Your task to perform on an android device: allow cookies in the chrome app Image 0: 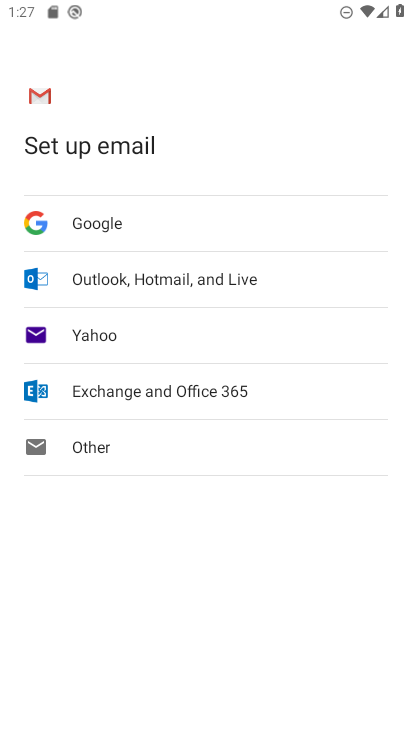
Step 0: press home button
Your task to perform on an android device: allow cookies in the chrome app Image 1: 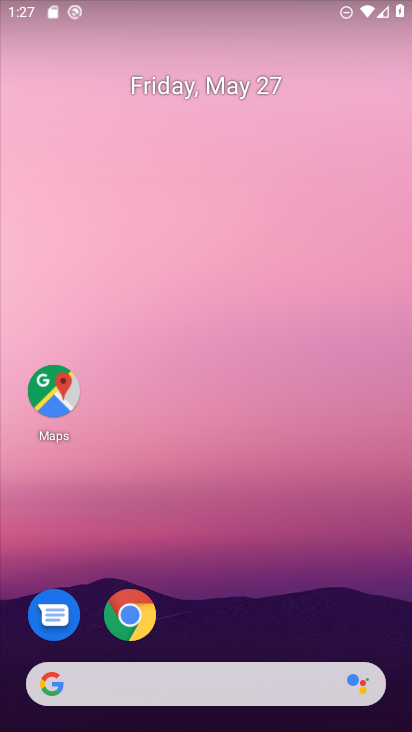
Step 1: drag from (253, 618) to (261, 190)
Your task to perform on an android device: allow cookies in the chrome app Image 2: 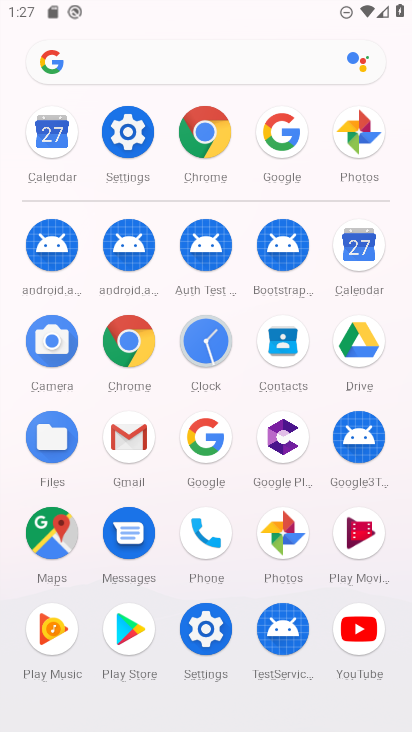
Step 2: click (139, 367)
Your task to perform on an android device: allow cookies in the chrome app Image 3: 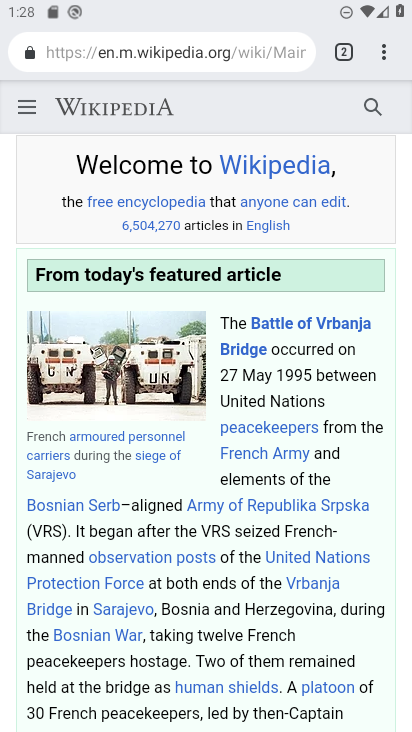
Step 3: click (386, 59)
Your task to perform on an android device: allow cookies in the chrome app Image 4: 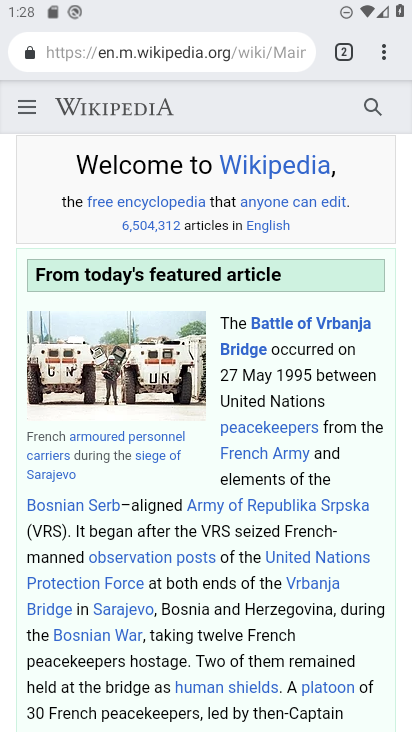
Step 4: click (386, 59)
Your task to perform on an android device: allow cookies in the chrome app Image 5: 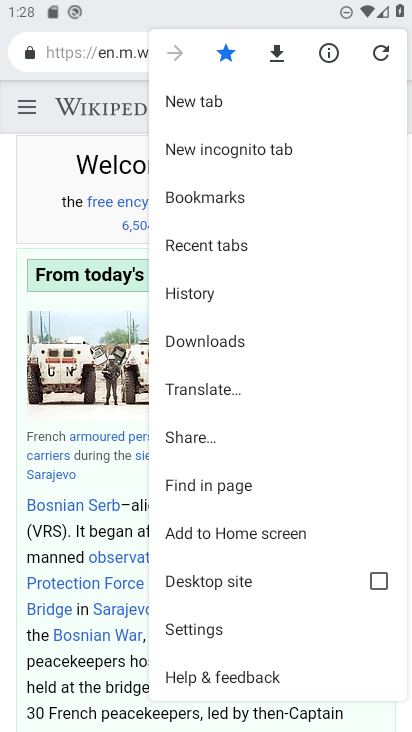
Step 5: drag from (240, 569) to (283, 407)
Your task to perform on an android device: allow cookies in the chrome app Image 6: 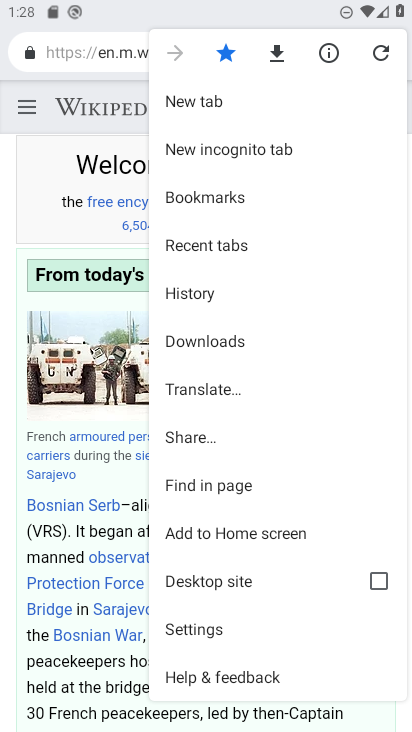
Step 6: click (211, 634)
Your task to perform on an android device: allow cookies in the chrome app Image 7: 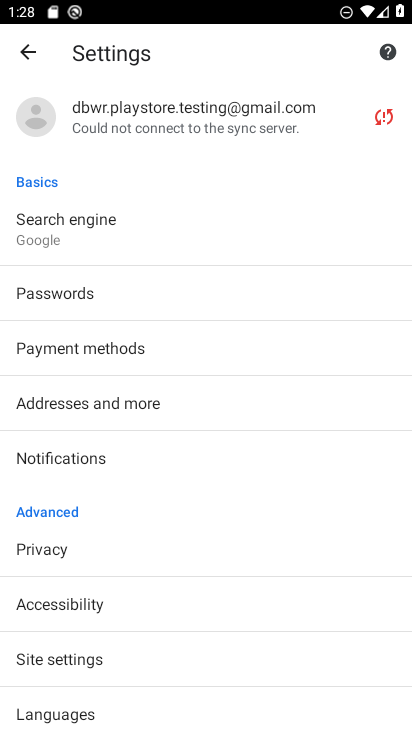
Step 7: click (43, 655)
Your task to perform on an android device: allow cookies in the chrome app Image 8: 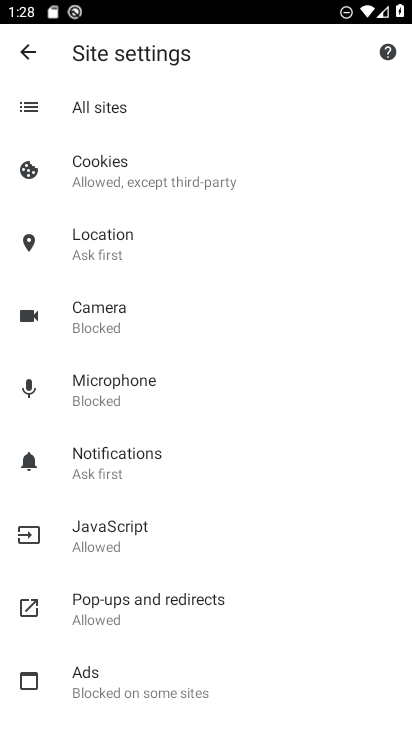
Step 8: click (167, 185)
Your task to perform on an android device: allow cookies in the chrome app Image 9: 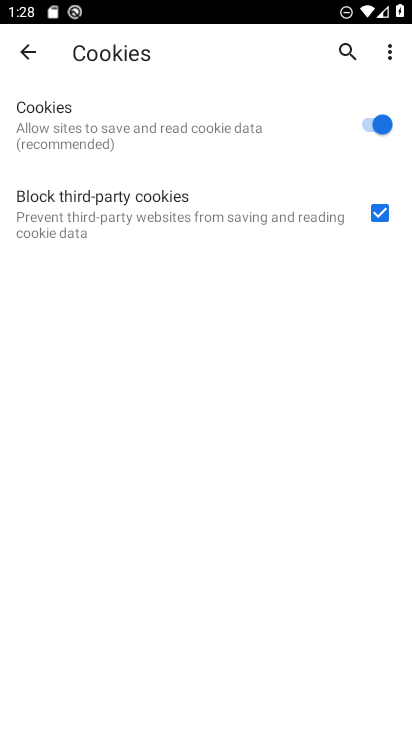
Step 9: task complete